Your task to perform on an android device: delete browsing data in the chrome app Image 0: 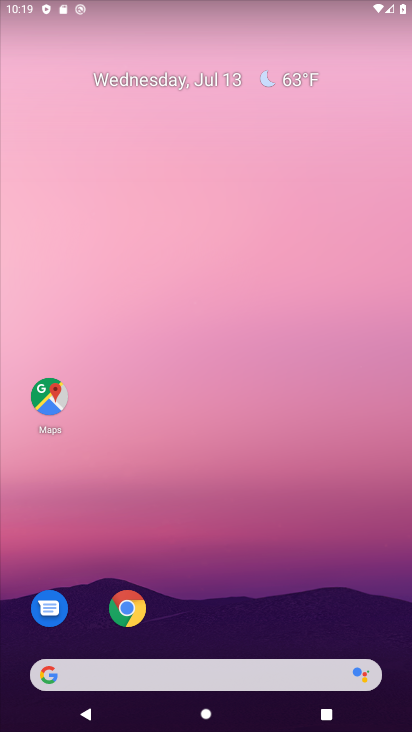
Step 0: drag from (176, 544) to (299, 34)
Your task to perform on an android device: delete browsing data in the chrome app Image 1: 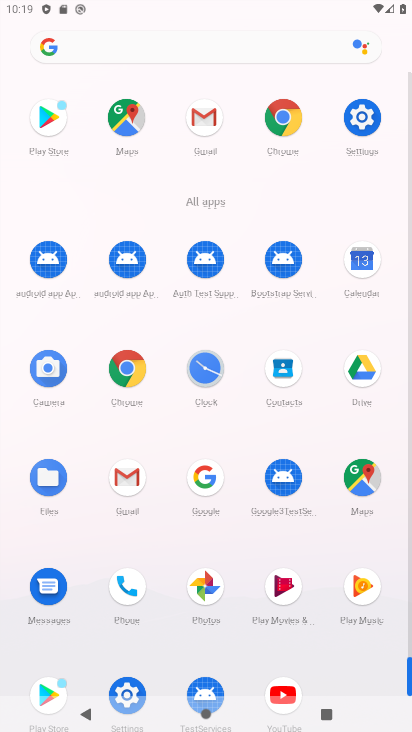
Step 1: click (125, 348)
Your task to perform on an android device: delete browsing data in the chrome app Image 2: 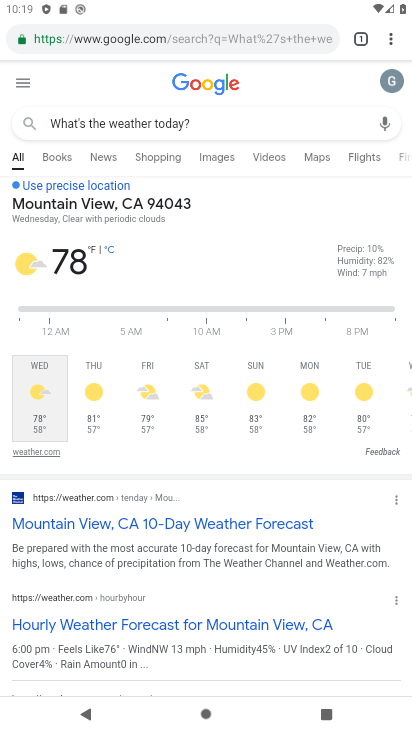
Step 2: click (391, 26)
Your task to perform on an android device: delete browsing data in the chrome app Image 3: 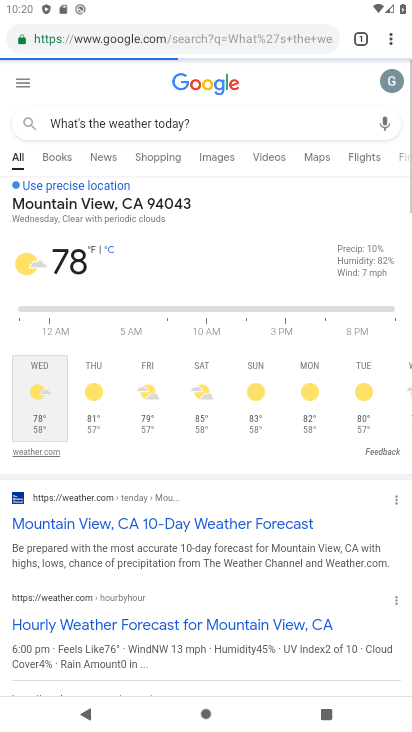
Step 3: drag from (391, 26) to (261, 426)
Your task to perform on an android device: delete browsing data in the chrome app Image 4: 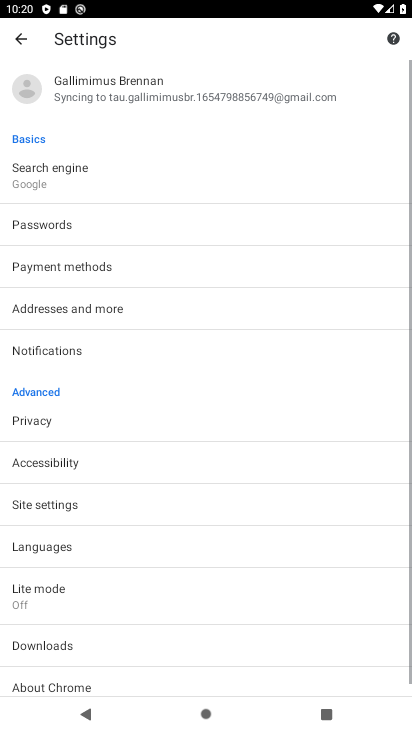
Step 4: drag from (238, 585) to (301, 58)
Your task to perform on an android device: delete browsing data in the chrome app Image 5: 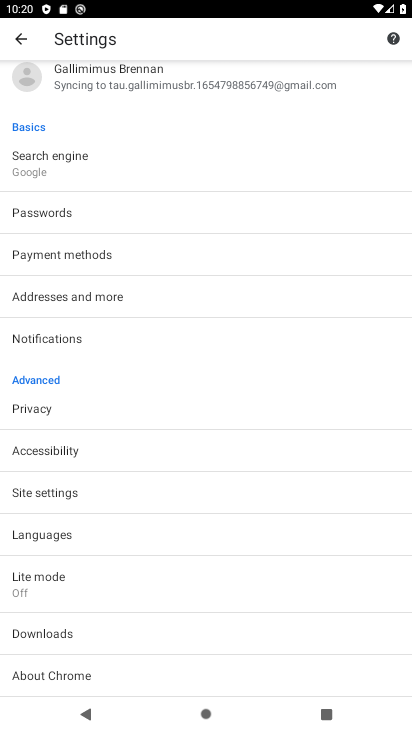
Step 5: click (15, 404)
Your task to perform on an android device: delete browsing data in the chrome app Image 6: 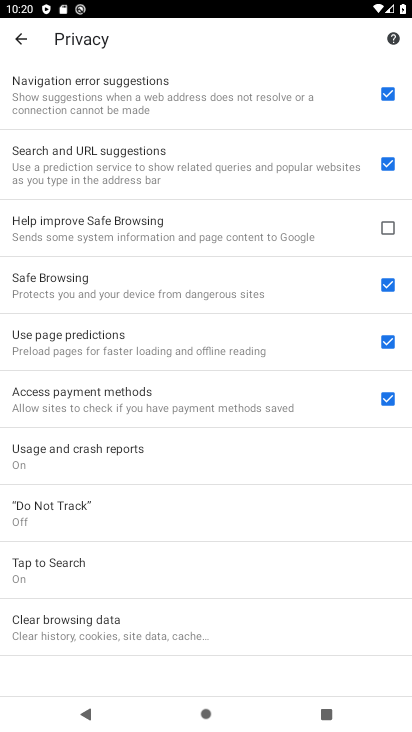
Step 6: drag from (212, 559) to (223, 215)
Your task to perform on an android device: delete browsing data in the chrome app Image 7: 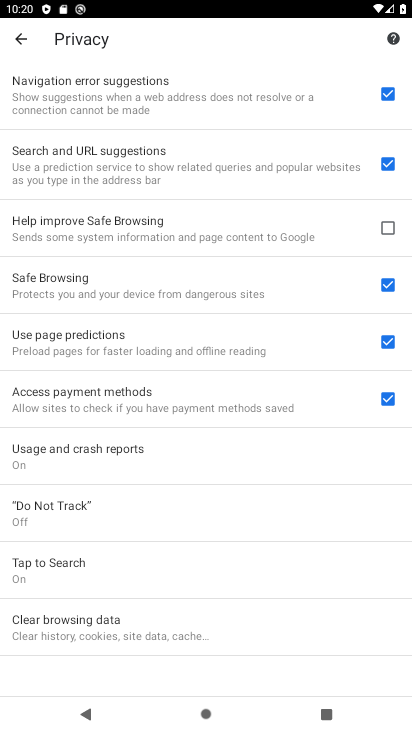
Step 7: click (91, 622)
Your task to perform on an android device: delete browsing data in the chrome app Image 8: 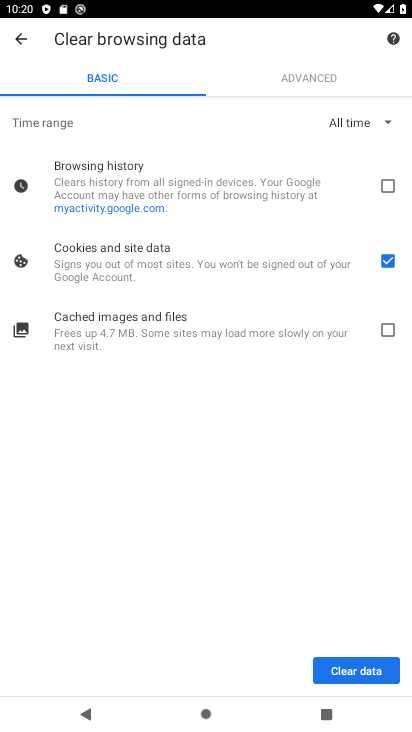
Step 8: click (386, 189)
Your task to perform on an android device: delete browsing data in the chrome app Image 9: 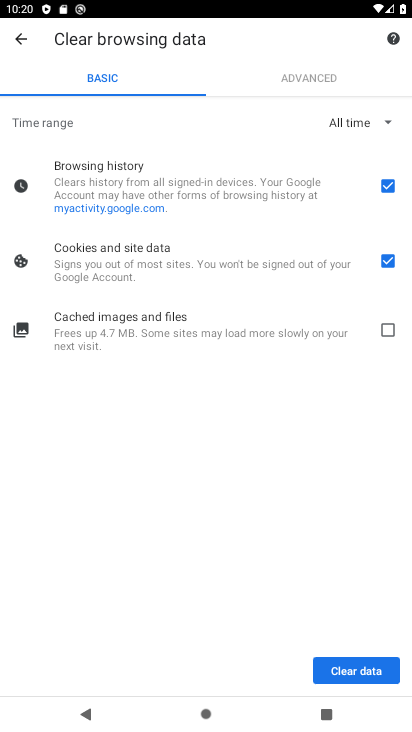
Step 9: click (361, 657)
Your task to perform on an android device: delete browsing data in the chrome app Image 10: 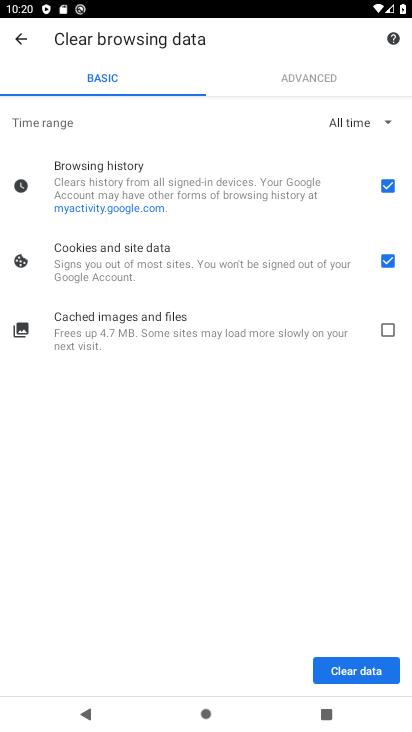
Step 10: click (361, 657)
Your task to perform on an android device: delete browsing data in the chrome app Image 11: 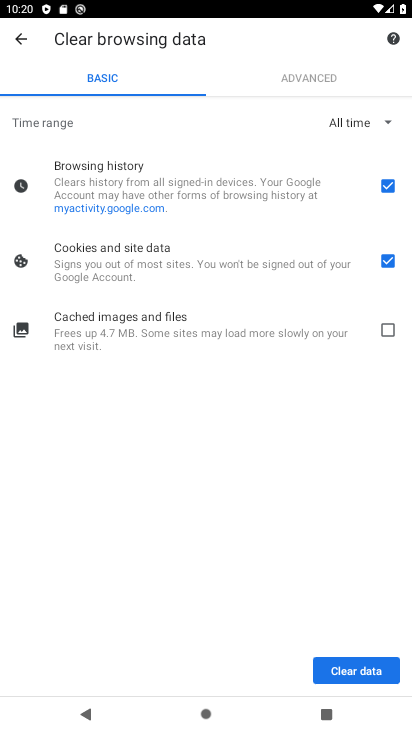
Step 11: click (371, 670)
Your task to perform on an android device: delete browsing data in the chrome app Image 12: 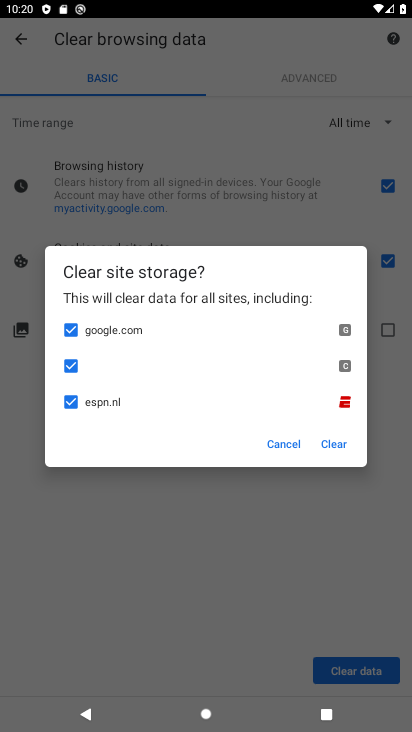
Step 12: click (328, 439)
Your task to perform on an android device: delete browsing data in the chrome app Image 13: 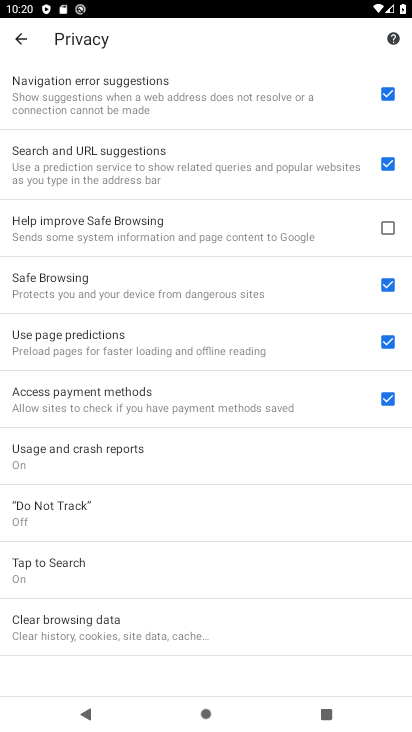
Step 13: task complete